Your task to perform on an android device: Go to Amazon Image 0: 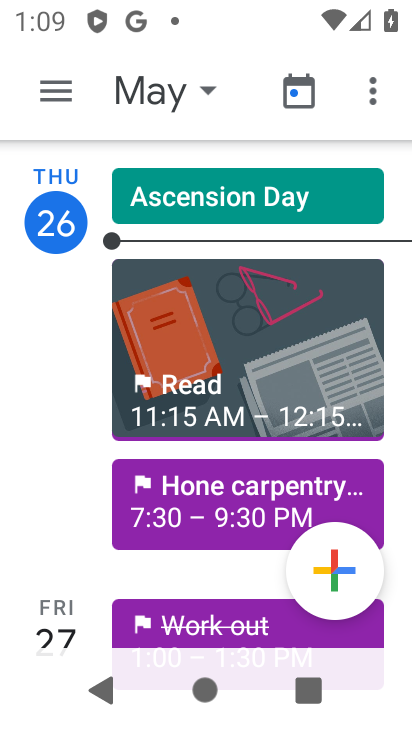
Step 0: press home button
Your task to perform on an android device: Go to Amazon Image 1: 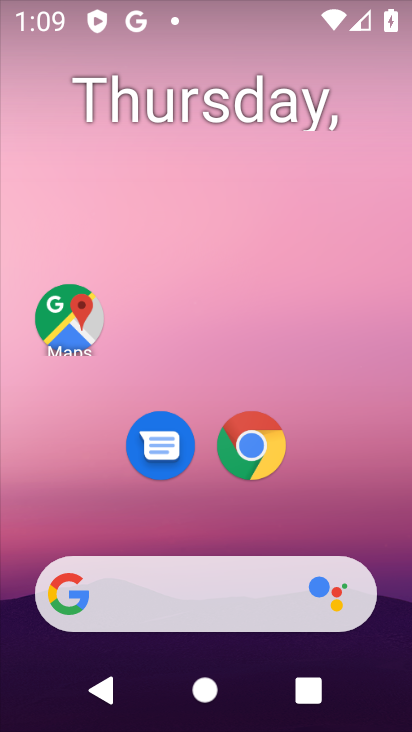
Step 1: drag from (209, 514) to (270, 136)
Your task to perform on an android device: Go to Amazon Image 2: 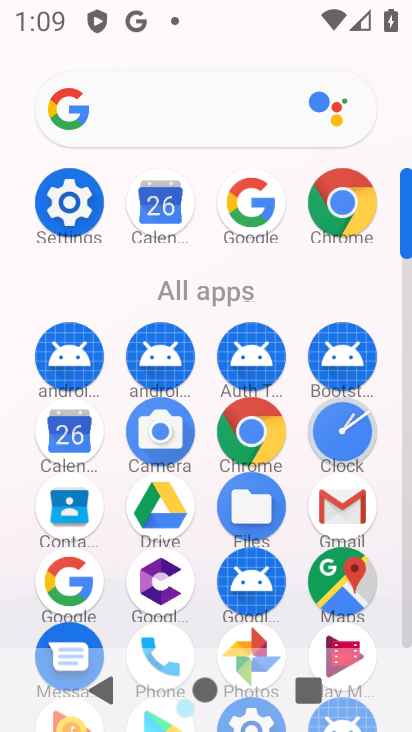
Step 2: click (189, 100)
Your task to perform on an android device: Go to Amazon Image 3: 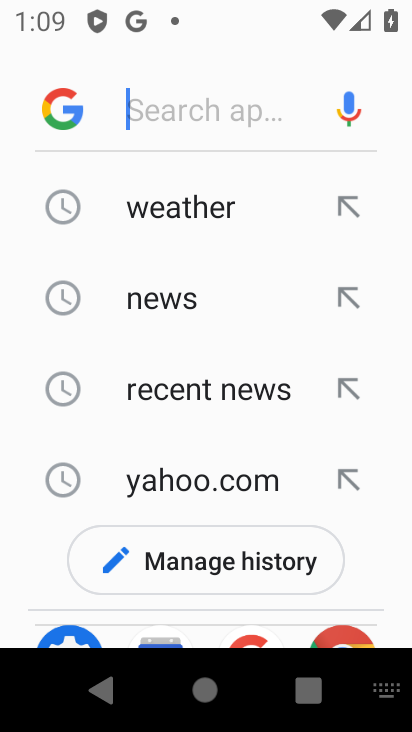
Step 3: type "Amazon"
Your task to perform on an android device: Go to Amazon Image 4: 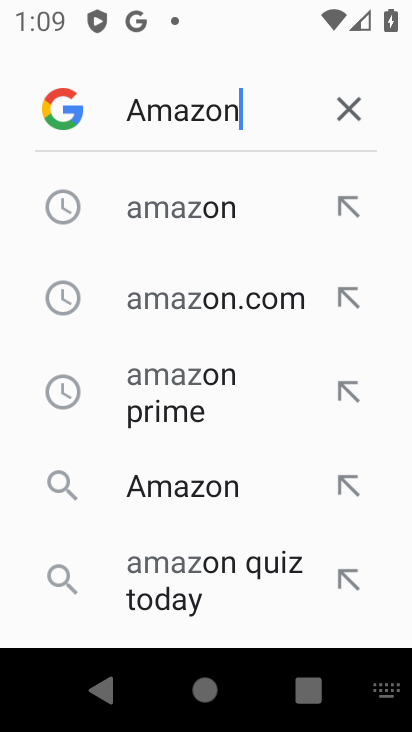
Step 4: type ""
Your task to perform on an android device: Go to Amazon Image 5: 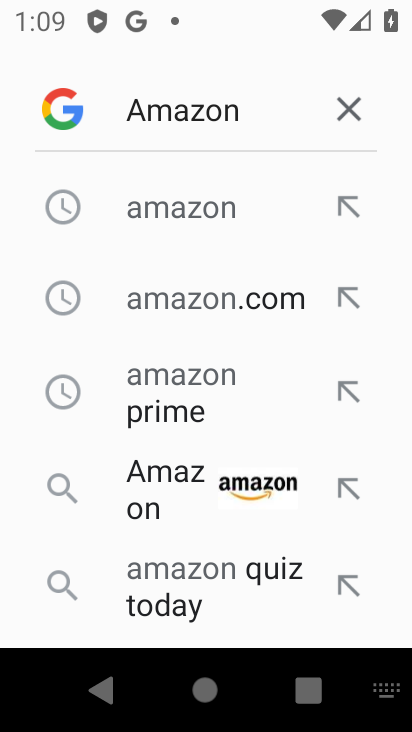
Step 5: click (134, 230)
Your task to perform on an android device: Go to Amazon Image 6: 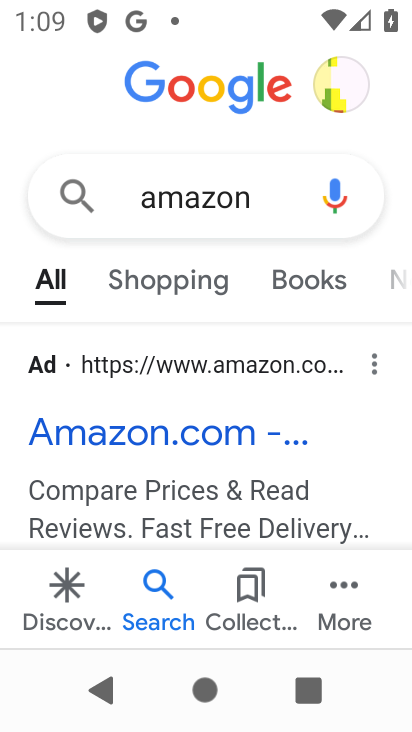
Step 6: click (105, 428)
Your task to perform on an android device: Go to Amazon Image 7: 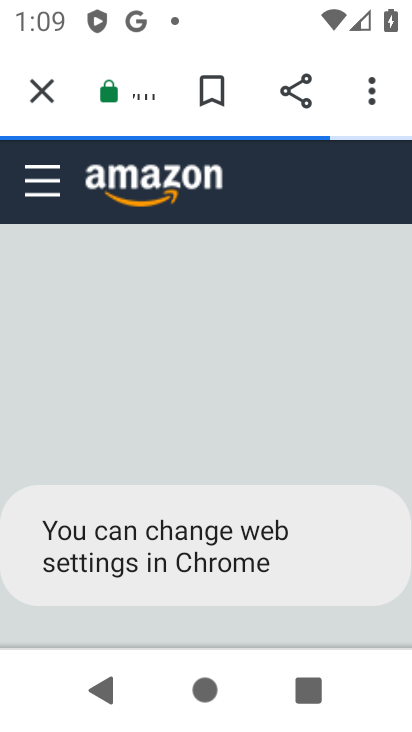
Step 7: task complete